Your task to perform on an android device: turn off data saver in the chrome app Image 0: 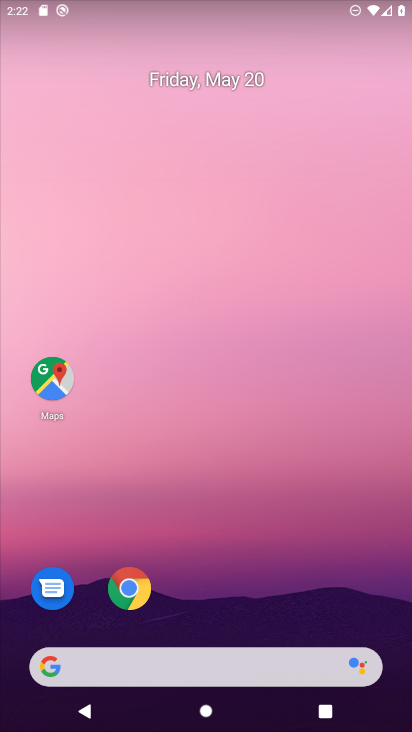
Step 0: click (136, 591)
Your task to perform on an android device: turn off data saver in the chrome app Image 1: 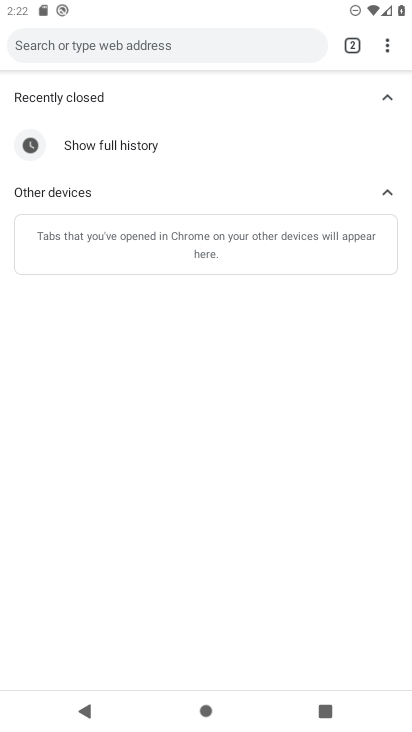
Step 1: click (384, 47)
Your task to perform on an android device: turn off data saver in the chrome app Image 2: 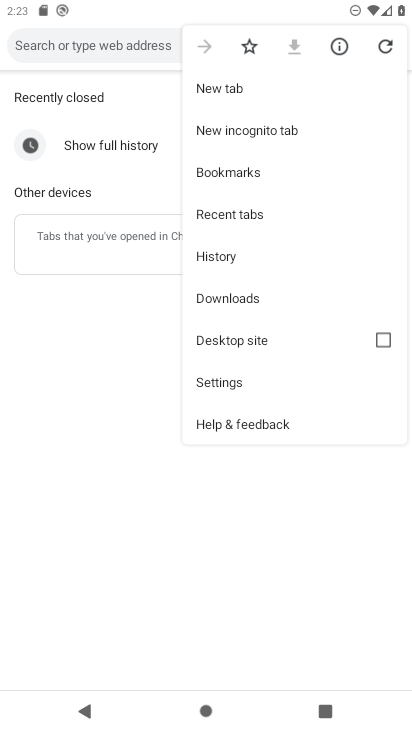
Step 2: click (221, 380)
Your task to perform on an android device: turn off data saver in the chrome app Image 3: 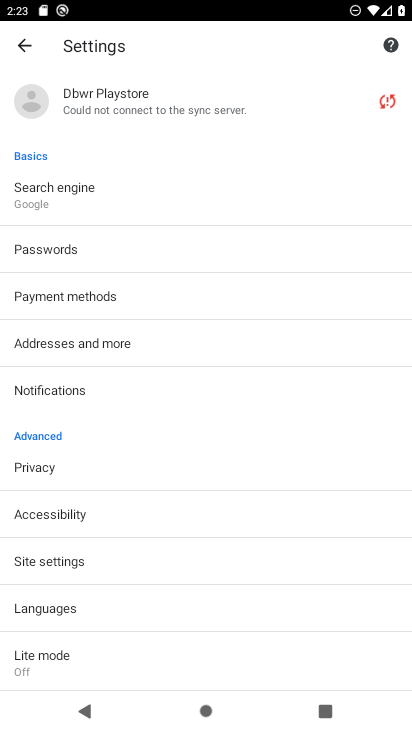
Step 3: click (36, 658)
Your task to perform on an android device: turn off data saver in the chrome app Image 4: 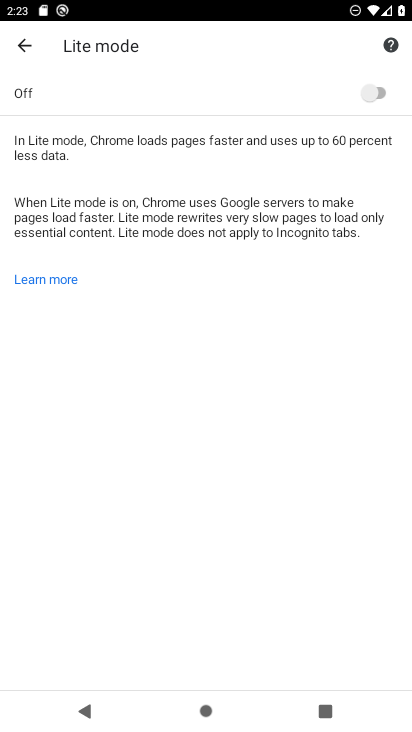
Step 4: task complete